Your task to perform on an android device: check the backup settings in the google photos Image 0: 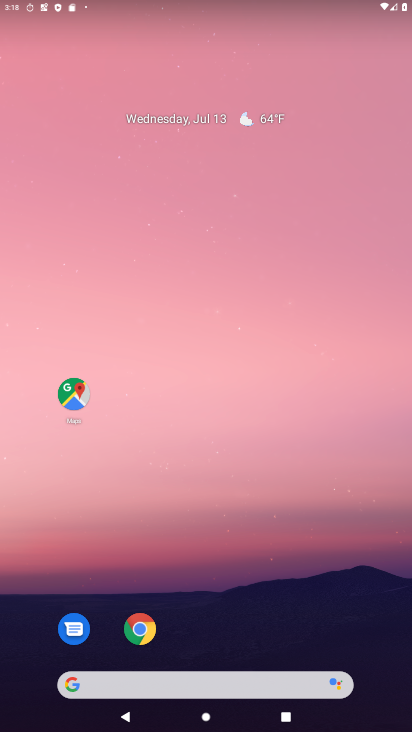
Step 0: drag from (330, 679) to (276, 5)
Your task to perform on an android device: check the backup settings in the google photos Image 1: 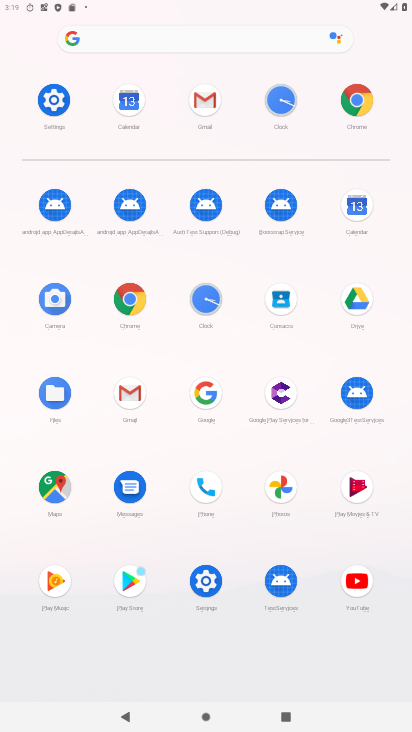
Step 1: click (282, 492)
Your task to perform on an android device: check the backup settings in the google photos Image 2: 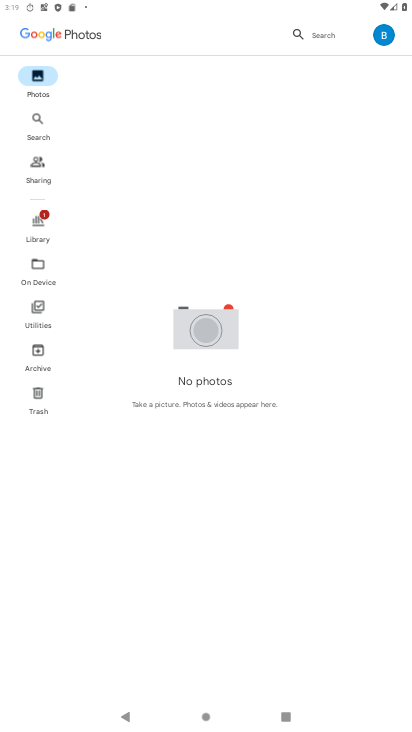
Step 2: click (384, 34)
Your task to perform on an android device: check the backup settings in the google photos Image 3: 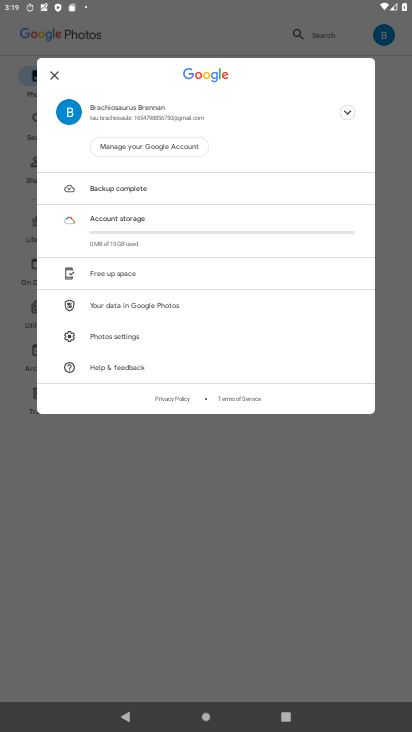
Step 3: click (130, 336)
Your task to perform on an android device: check the backup settings in the google photos Image 4: 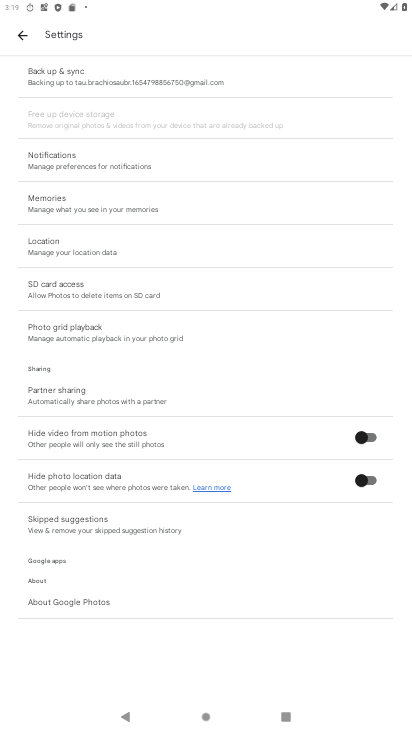
Step 4: click (90, 78)
Your task to perform on an android device: check the backup settings in the google photos Image 5: 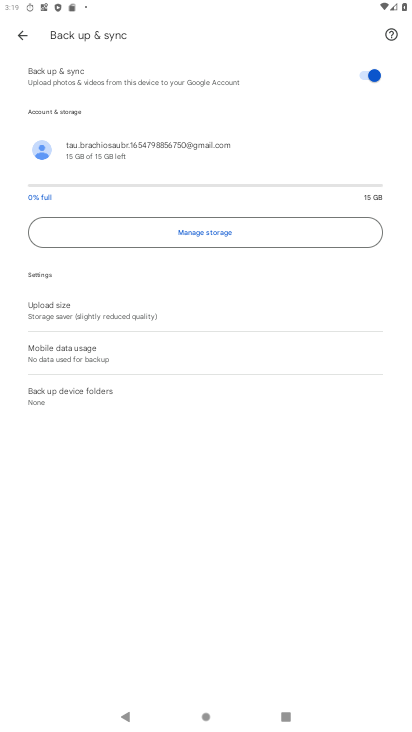
Step 5: click (111, 72)
Your task to perform on an android device: check the backup settings in the google photos Image 6: 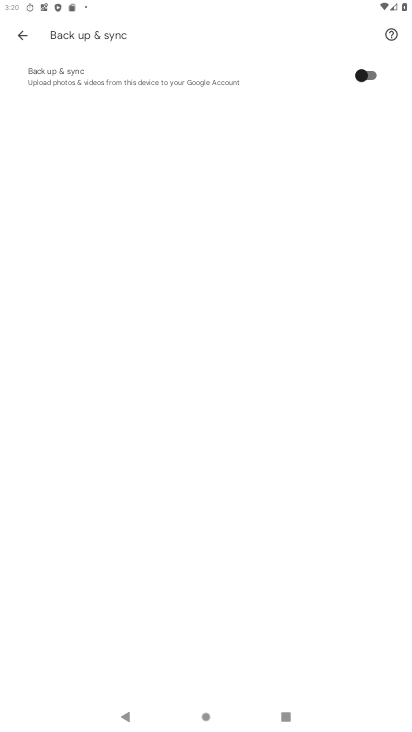
Step 6: click (373, 76)
Your task to perform on an android device: check the backup settings in the google photos Image 7: 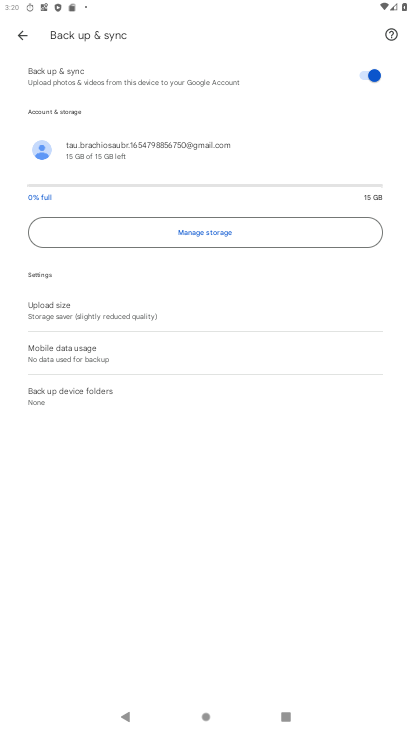
Step 7: task complete